Your task to perform on an android device: install app "Airtel Thanks" Image 0: 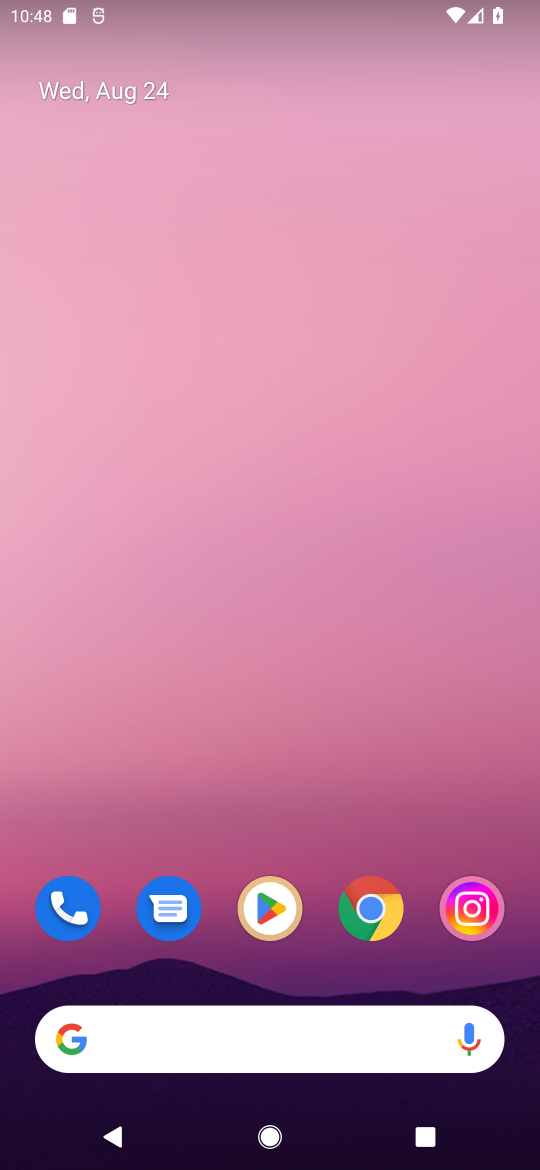
Step 0: click (268, 936)
Your task to perform on an android device: install app "Airtel Thanks" Image 1: 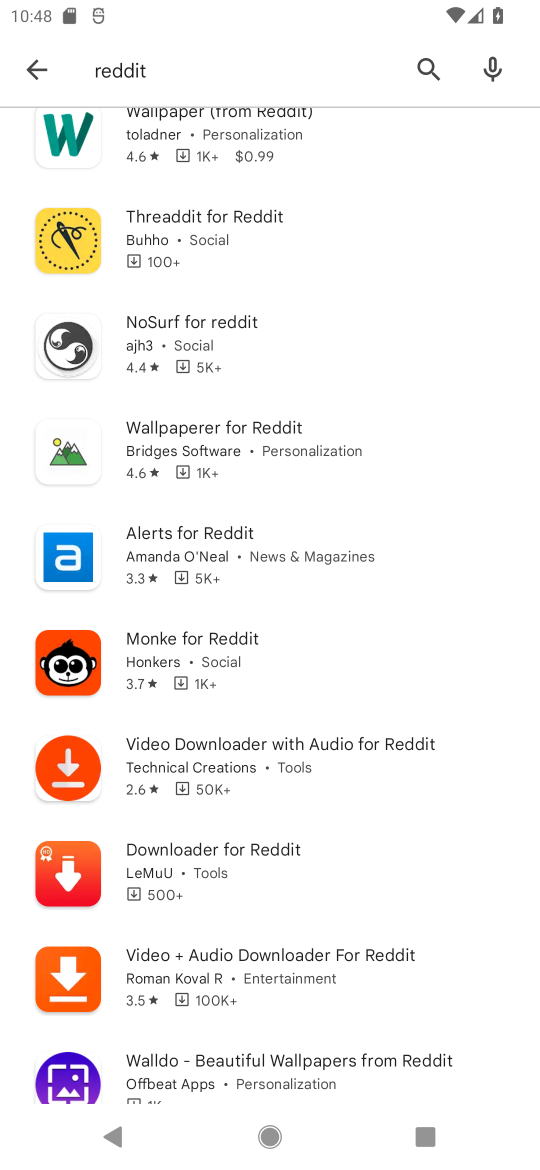
Step 1: click (35, 64)
Your task to perform on an android device: install app "Airtel Thanks" Image 2: 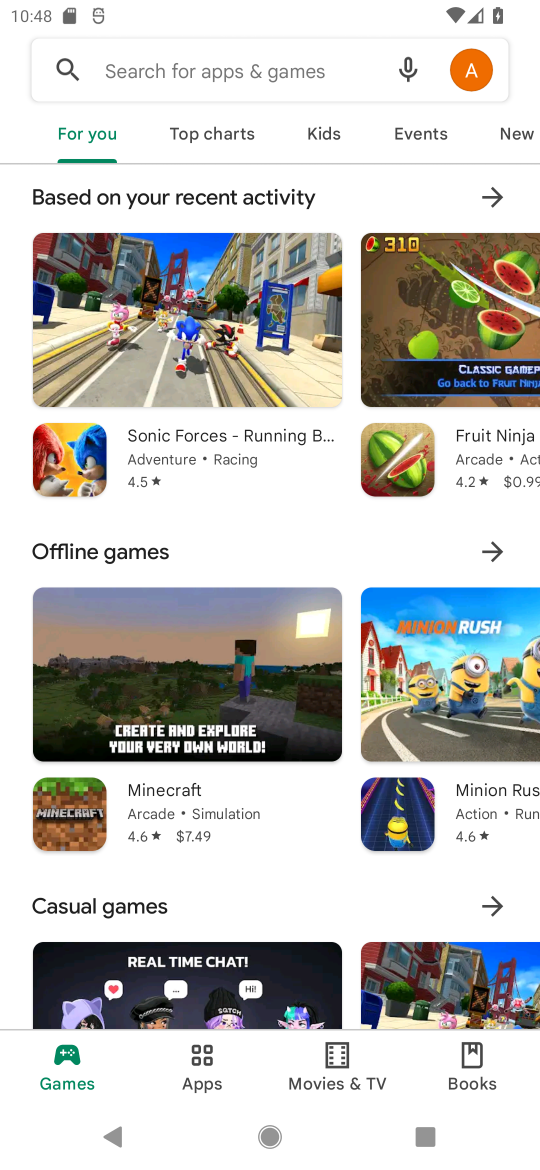
Step 2: click (268, 61)
Your task to perform on an android device: install app "Airtel Thanks" Image 3: 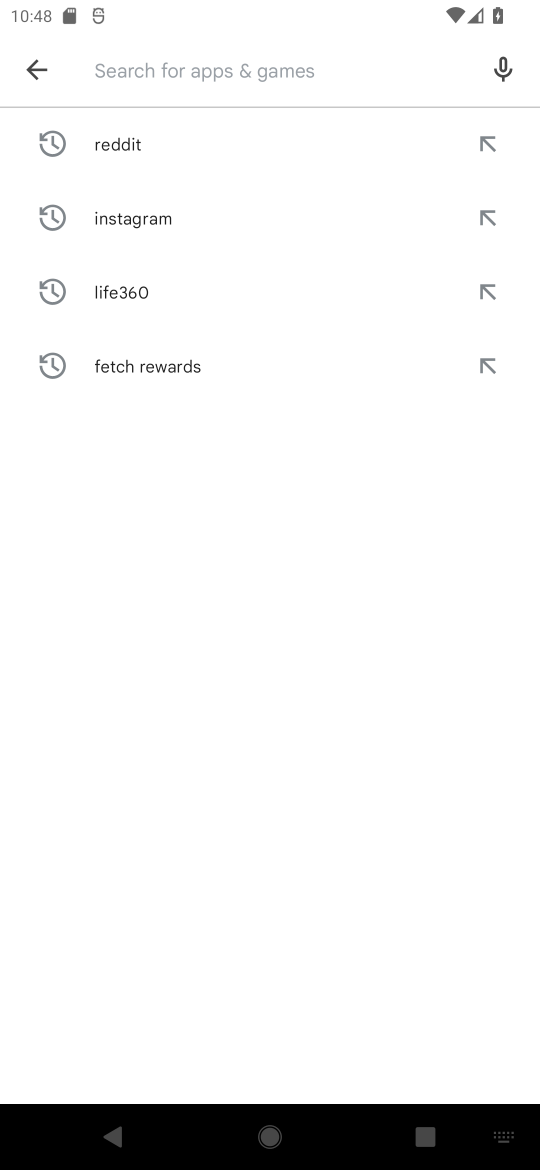
Step 3: type "Airtel Thanks"
Your task to perform on an android device: install app "Airtel Thanks" Image 4: 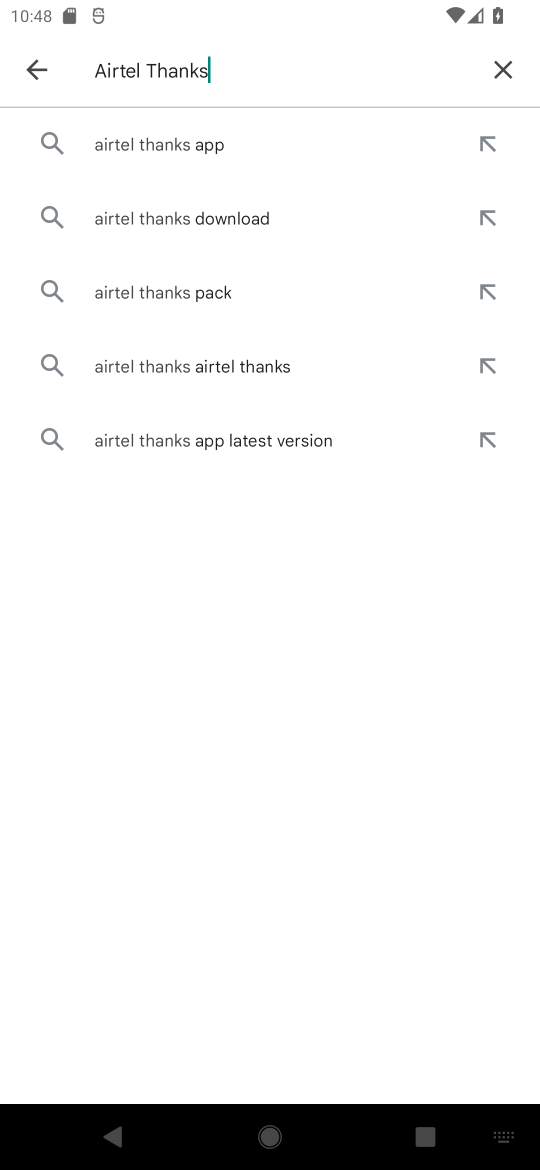
Step 4: click (147, 129)
Your task to perform on an android device: install app "Airtel Thanks" Image 5: 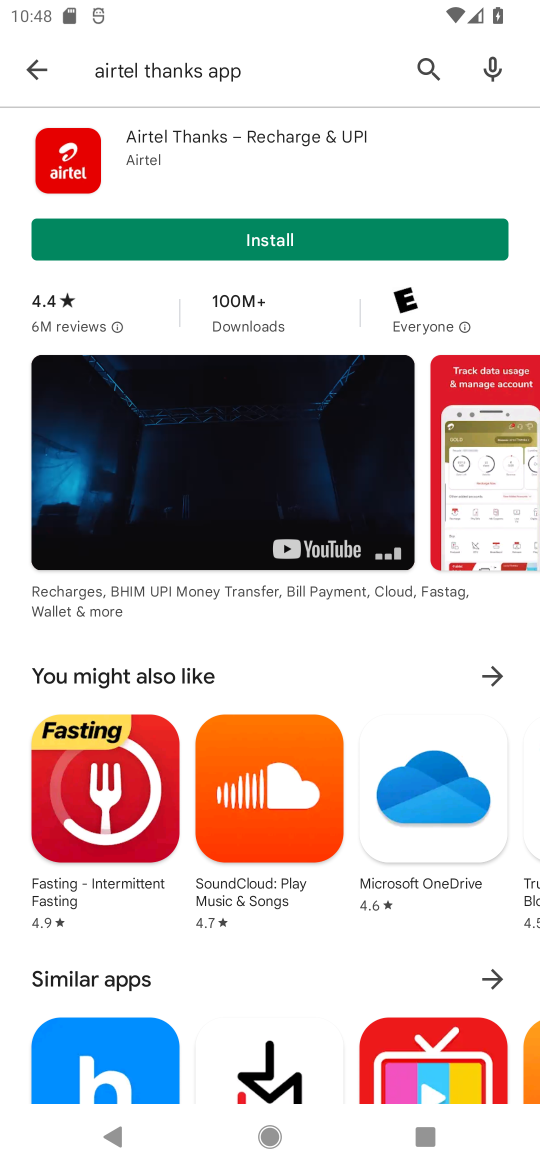
Step 5: click (178, 236)
Your task to perform on an android device: install app "Airtel Thanks" Image 6: 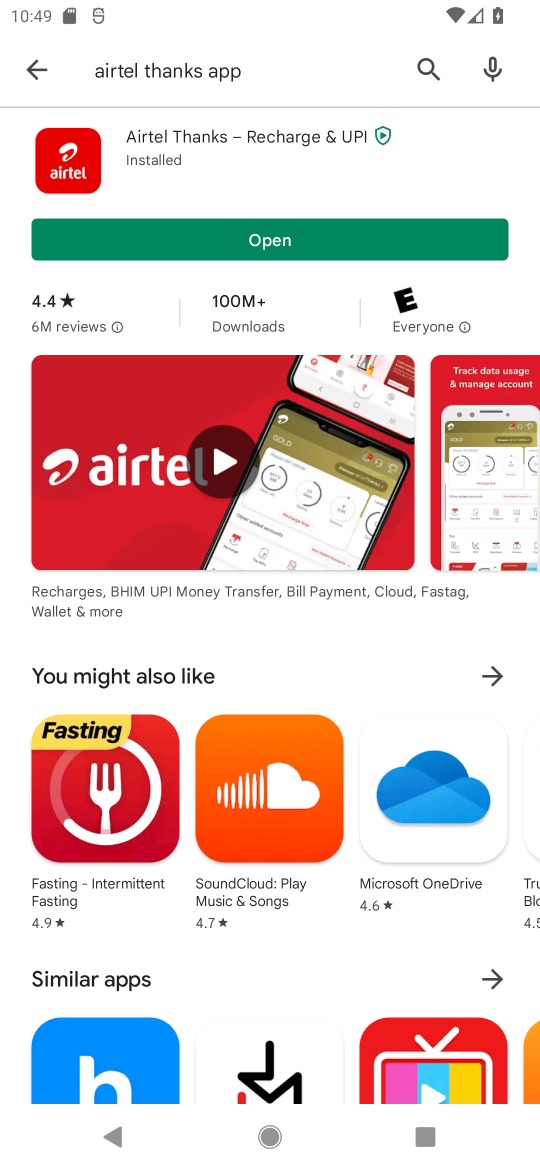
Step 6: task complete